Your task to perform on an android device: turn smart compose on in the gmail app Image 0: 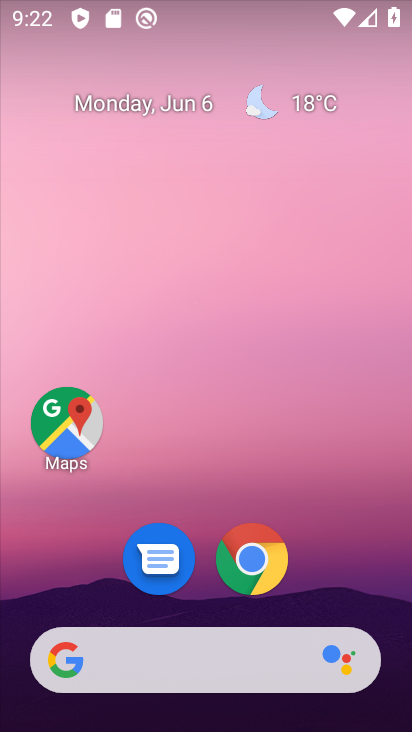
Step 0: drag from (243, 711) to (236, 89)
Your task to perform on an android device: turn smart compose on in the gmail app Image 1: 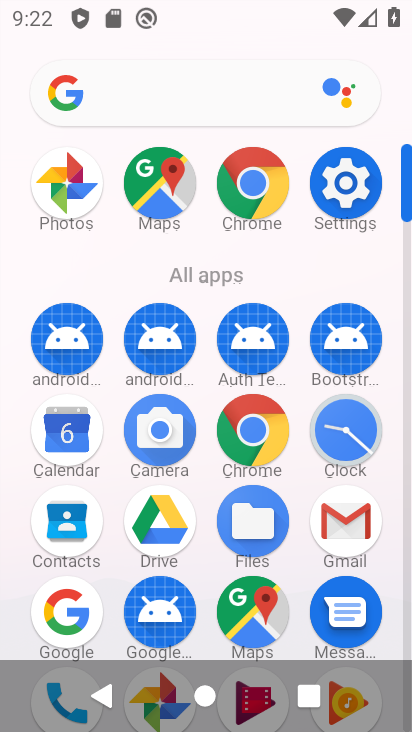
Step 1: click (348, 515)
Your task to perform on an android device: turn smart compose on in the gmail app Image 2: 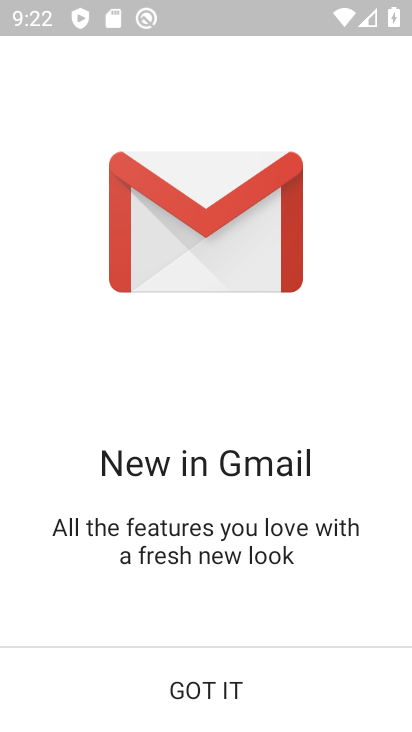
Step 2: click (192, 687)
Your task to perform on an android device: turn smart compose on in the gmail app Image 3: 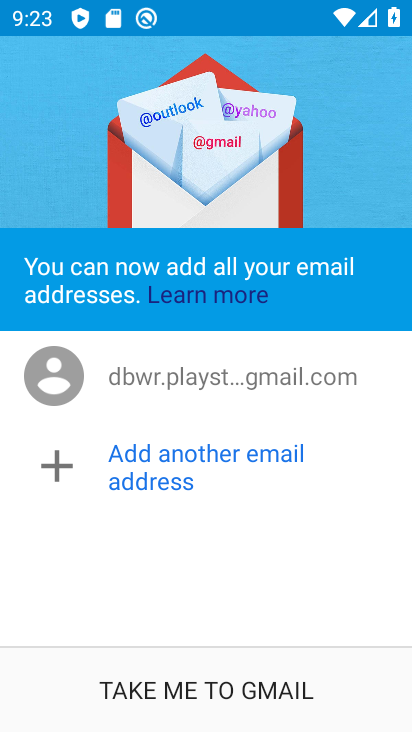
Step 3: click (234, 685)
Your task to perform on an android device: turn smart compose on in the gmail app Image 4: 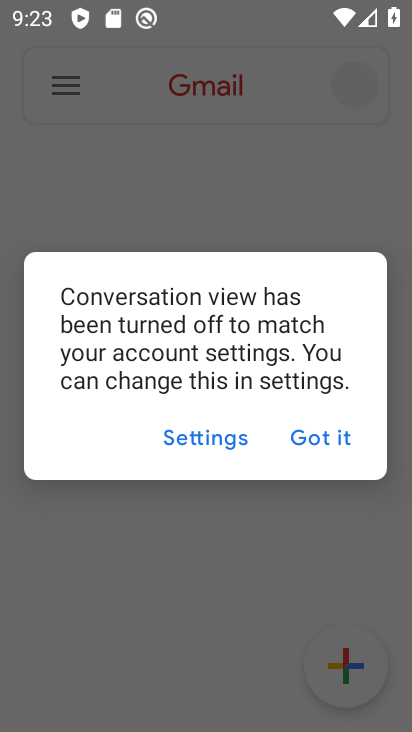
Step 4: click (327, 438)
Your task to perform on an android device: turn smart compose on in the gmail app Image 5: 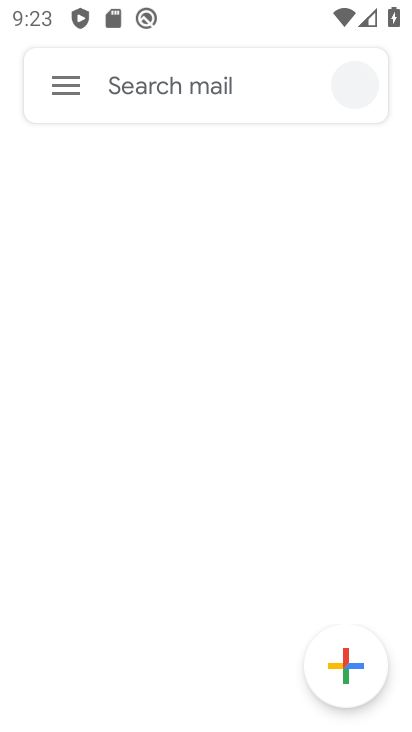
Step 5: click (55, 85)
Your task to perform on an android device: turn smart compose on in the gmail app Image 6: 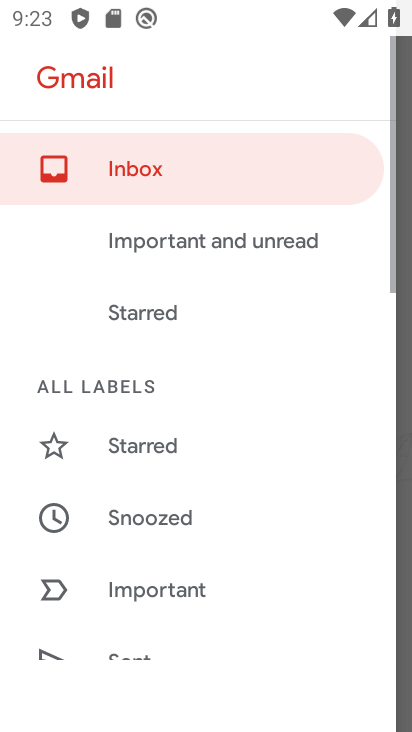
Step 6: drag from (205, 639) to (196, 323)
Your task to perform on an android device: turn smart compose on in the gmail app Image 7: 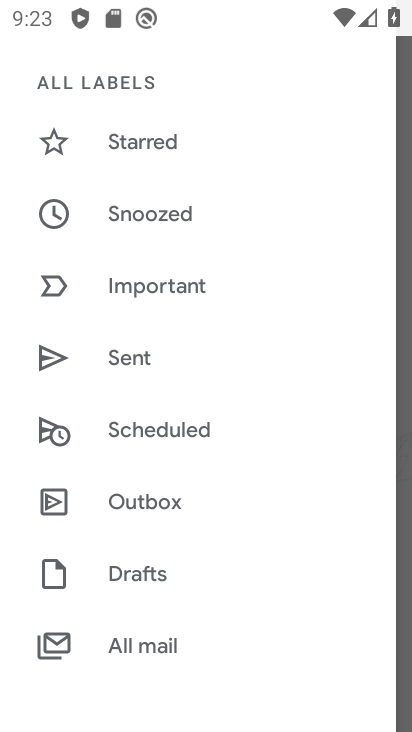
Step 7: drag from (171, 661) to (171, 346)
Your task to perform on an android device: turn smart compose on in the gmail app Image 8: 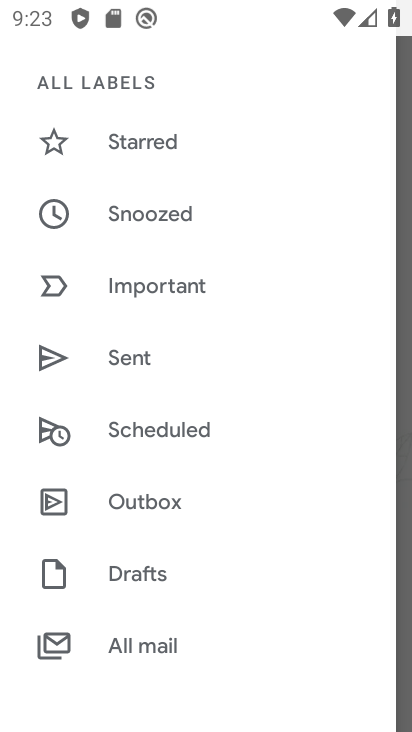
Step 8: drag from (150, 610) to (147, 279)
Your task to perform on an android device: turn smart compose on in the gmail app Image 9: 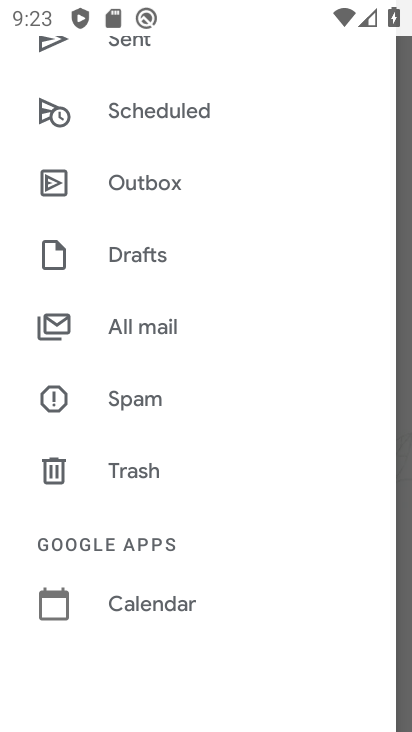
Step 9: drag from (126, 623) to (123, 301)
Your task to perform on an android device: turn smart compose on in the gmail app Image 10: 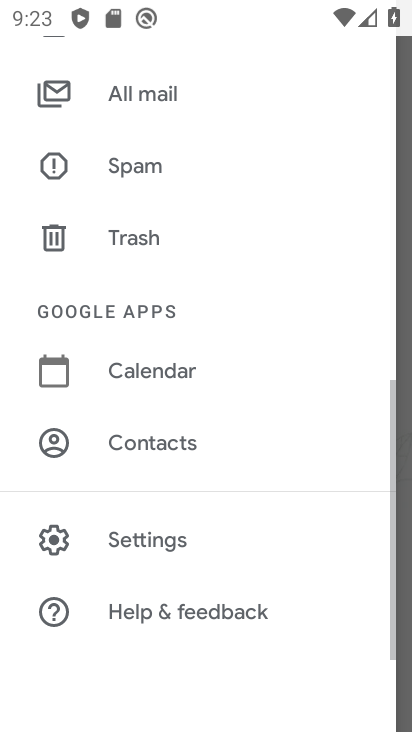
Step 10: drag from (149, 615) to (147, 211)
Your task to perform on an android device: turn smart compose on in the gmail app Image 11: 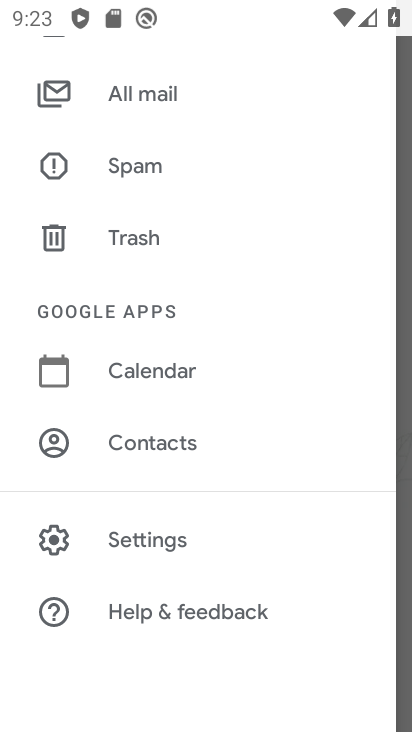
Step 11: click (147, 536)
Your task to perform on an android device: turn smart compose on in the gmail app Image 12: 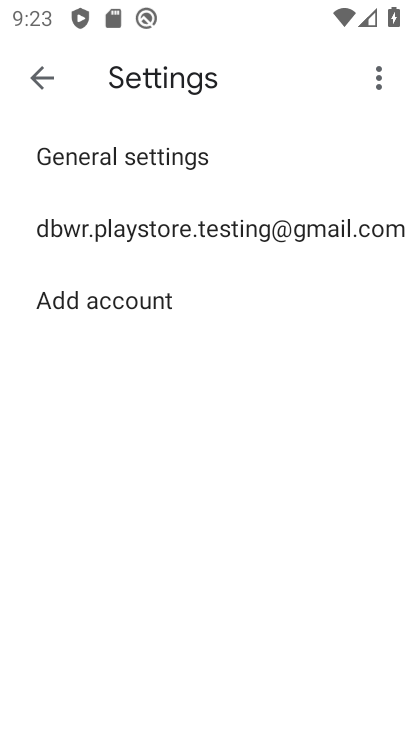
Step 12: click (237, 229)
Your task to perform on an android device: turn smart compose on in the gmail app Image 13: 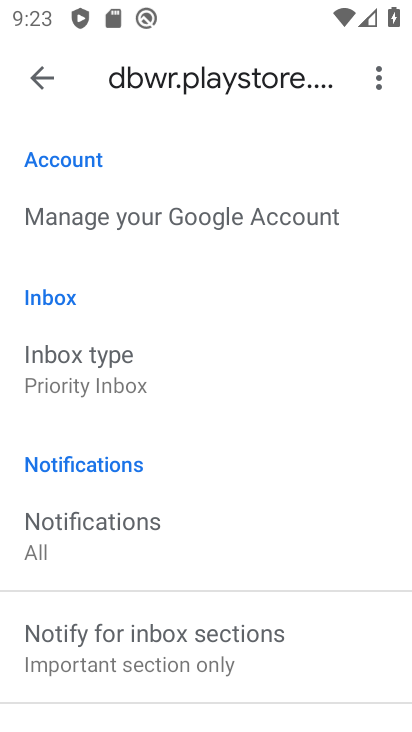
Step 13: task complete